Your task to perform on an android device: open app "Google Chat" (install if not already installed) Image 0: 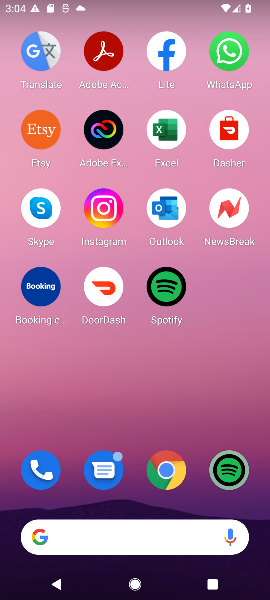
Step 0: drag from (127, 472) to (135, 195)
Your task to perform on an android device: open app "Google Chat" (install if not already installed) Image 1: 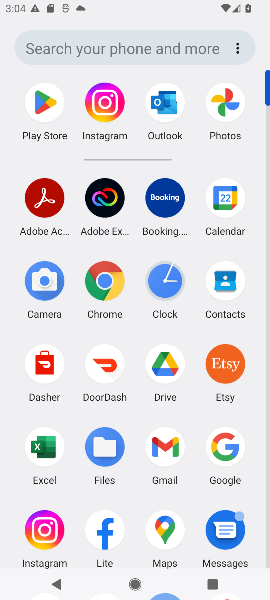
Step 1: click (37, 101)
Your task to perform on an android device: open app "Google Chat" (install if not already installed) Image 2: 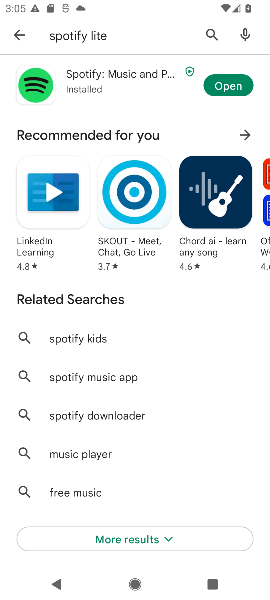
Step 2: click (31, 31)
Your task to perform on an android device: open app "Google Chat" (install if not already installed) Image 3: 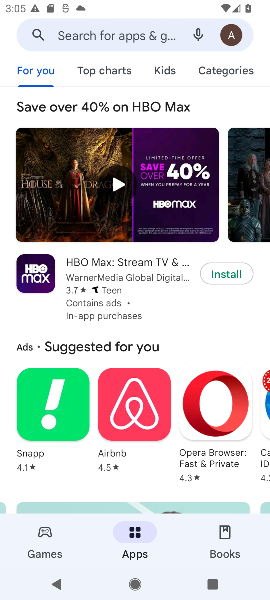
Step 3: click (103, 27)
Your task to perform on an android device: open app "Google Chat" (install if not already installed) Image 4: 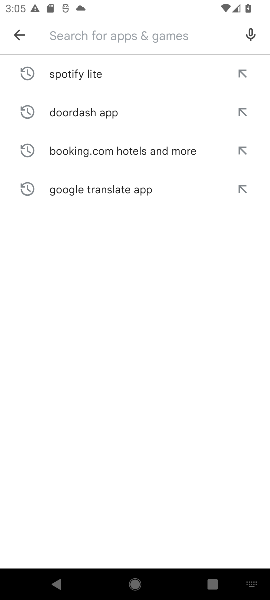
Step 4: type "gooogle chat "
Your task to perform on an android device: open app "Google Chat" (install if not already installed) Image 5: 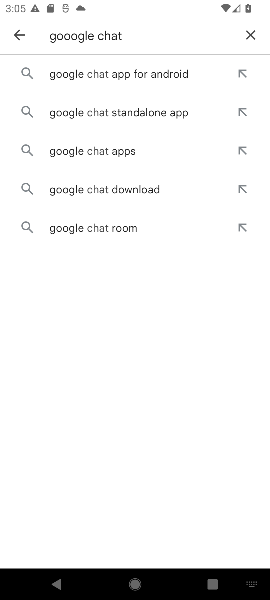
Step 5: click (119, 80)
Your task to perform on an android device: open app "Google Chat" (install if not already installed) Image 6: 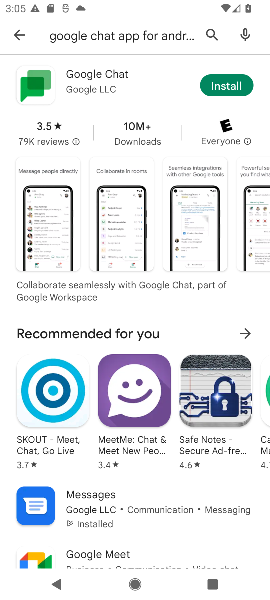
Step 6: click (242, 77)
Your task to perform on an android device: open app "Google Chat" (install if not already installed) Image 7: 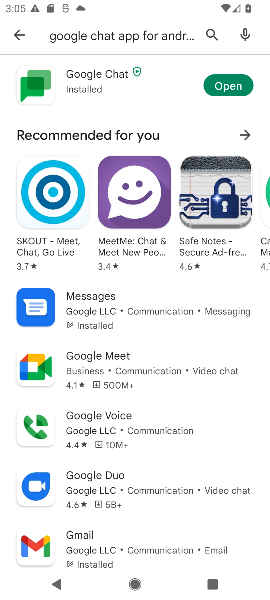
Step 7: click (235, 77)
Your task to perform on an android device: open app "Google Chat" (install if not already installed) Image 8: 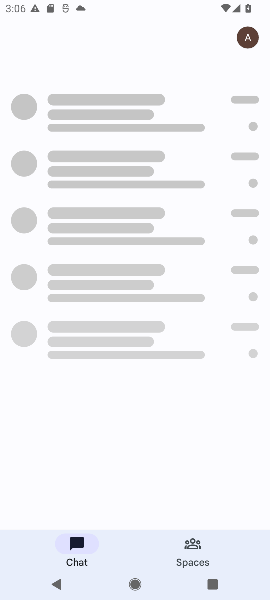
Step 8: task complete